Your task to perform on an android device: Open CNN.com Image 0: 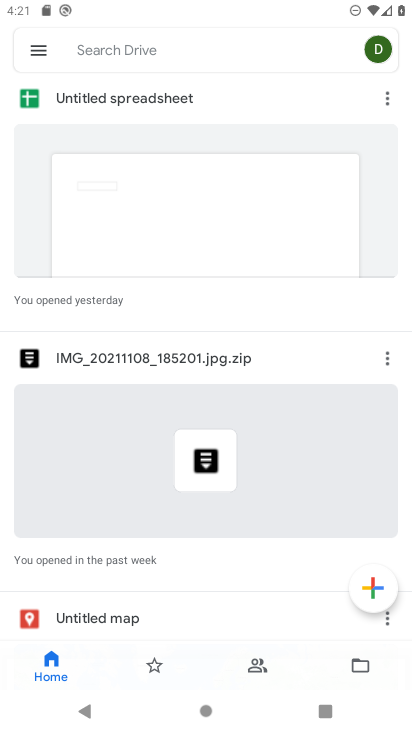
Step 0: press home button
Your task to perform on an android device: Open CNN.com Image 1: 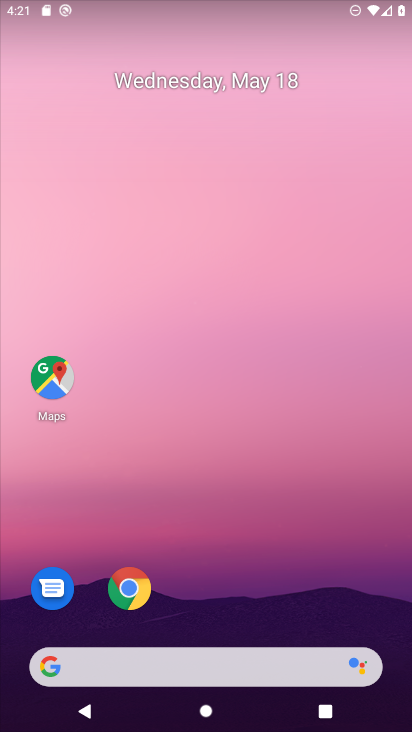
Step 1: click (146, 592)
Your task to perform on an android device: Open CNN.com Image 2: 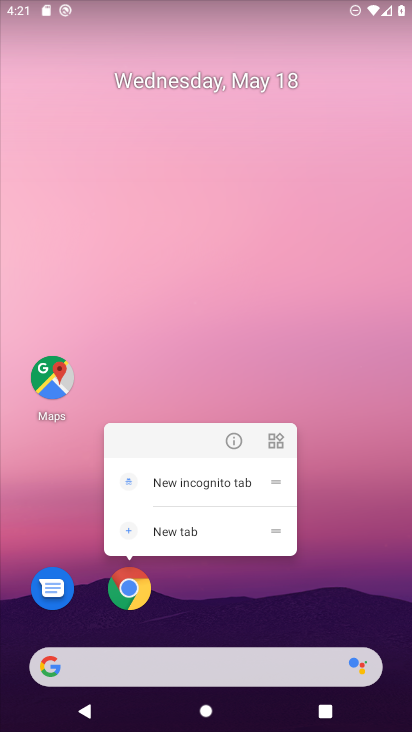
Step 2: click (140, 584)
Your task to perform on an android device: Open CNN.com Image 3: 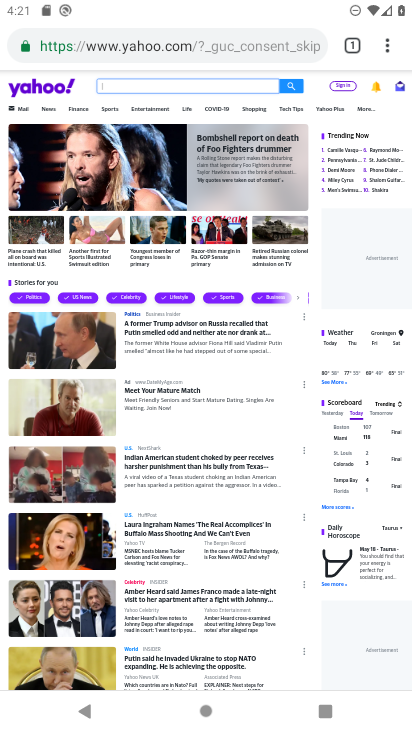
Step 3: click (254, 34)
Your task to perform on an android device: Open CNN.com Image 4: 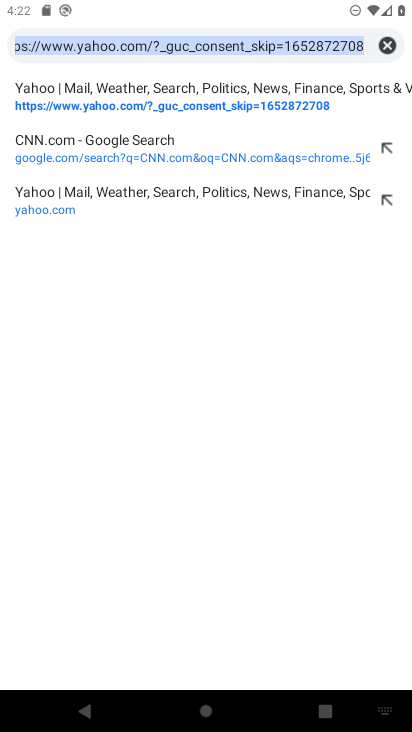
Step 4: type "cnn.com"
Your task to perform on an android device: Open CNN.com Image 5: 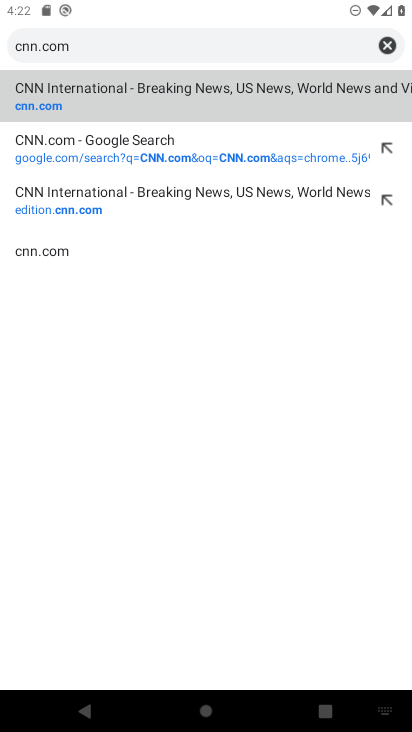
Step 5: click (284, 29)
Your task to perform on an android device: Open CNN.com Image 6: 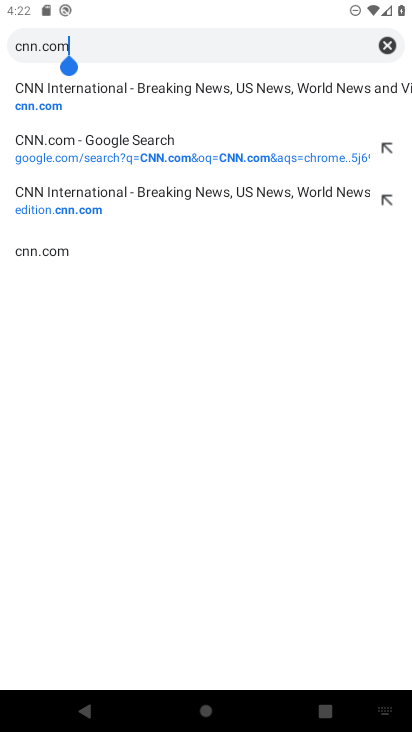
Step 6: click (265, 75)
Your task to perform on an android device: Open CNN.com Image 7: 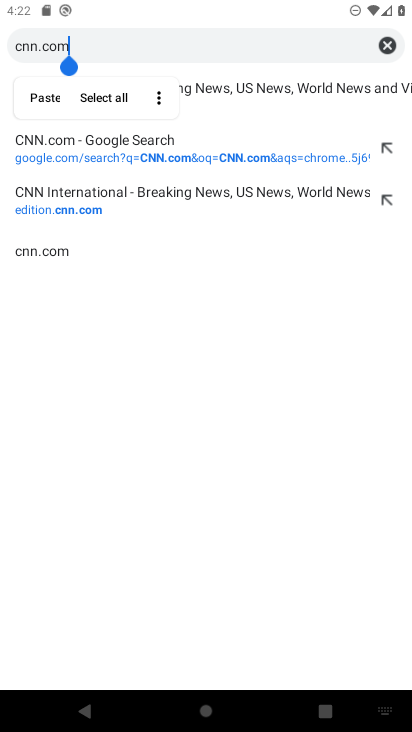
Step 7: click (248, 95)
Your task to perform on an android device: Open CNN.com Image 8: 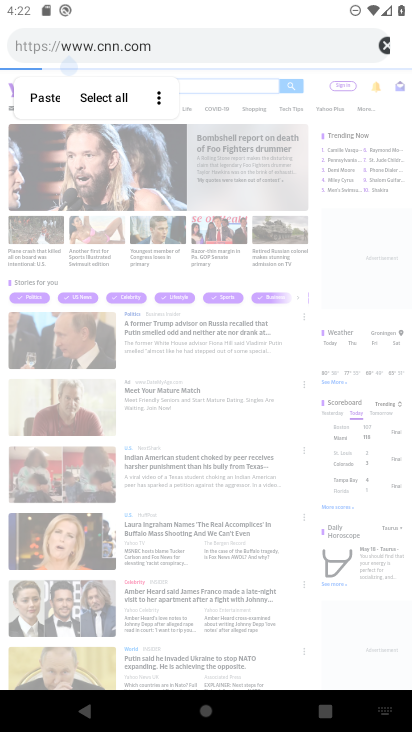
Step 8: click (277, 87)
Your task to perform on an android device: Open CNN.com Image 9: 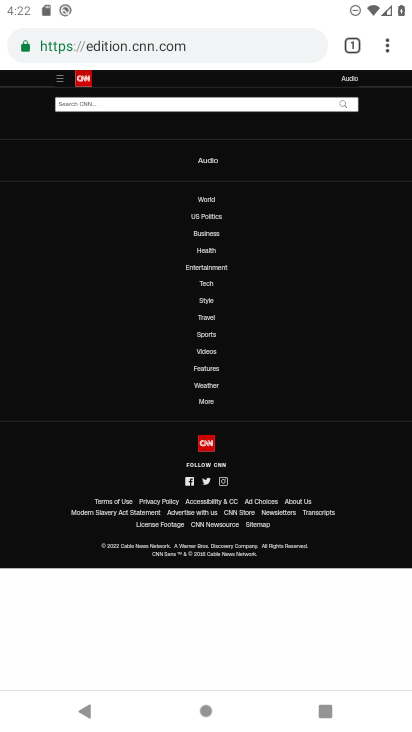
Step 9: task complete